Your task to perform on an android device: Search for a new lawnmower on Lowes.com Image 0: 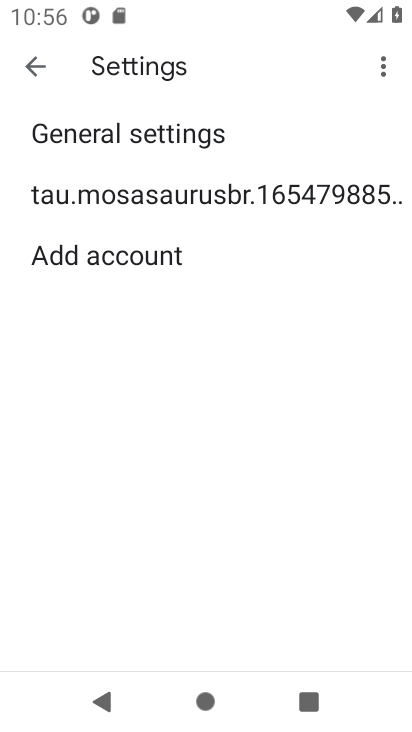
Step 0: press home button
Your task to perform on an android device: Search for a new lawnmower on Lowes.com Image 1: 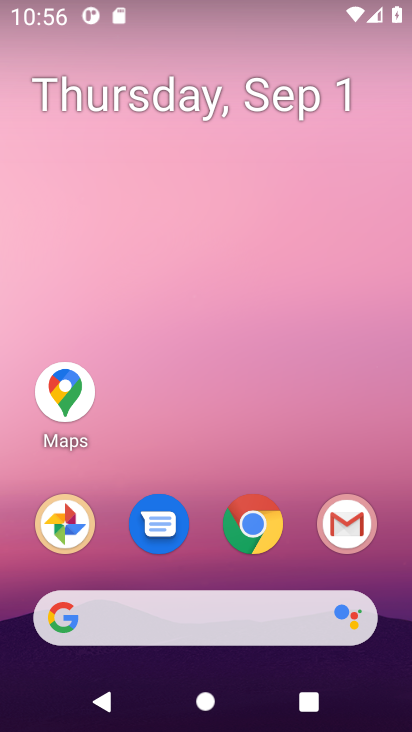
Step 1: click (256, 615)
Your task to perform on an android device: Search for a new lawnmower on Lowes.com Image 2: 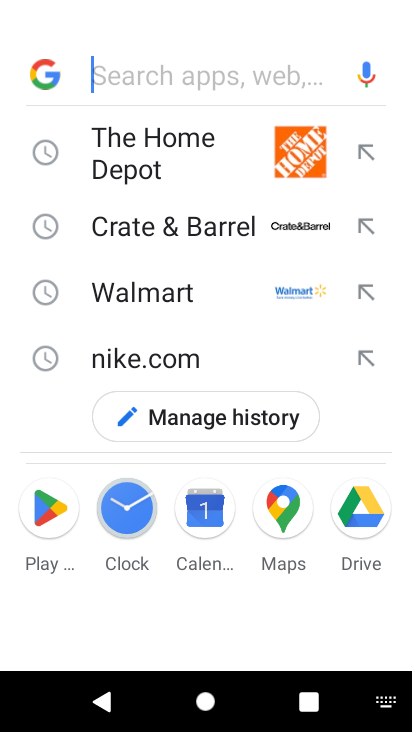
Step 2: type "lowes.com"
Your task to perform on an android device: Search for a new lawnmower on Lowes.com Image 3: 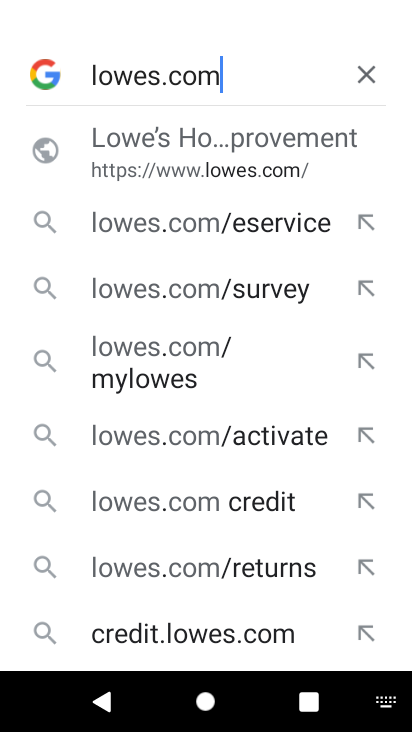
Step 3: press enter
Your task to perform on an android device: Search for a new lawnmower on Lowes.com Image 4: 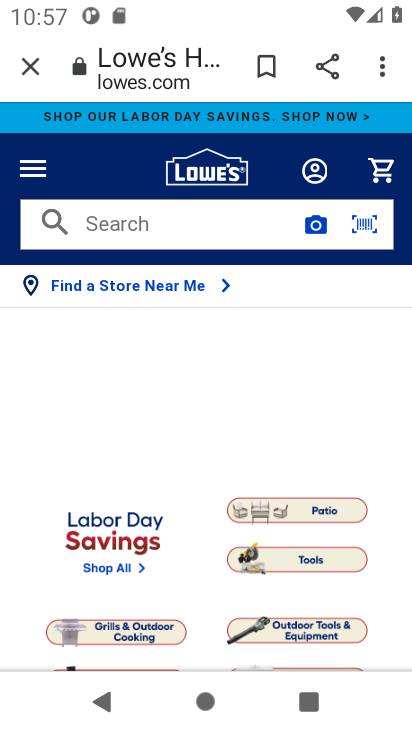
Step 4: click (161, 212)
Your task to perform on an android device: Search for a new lawnmower on Lowes.com Image 5: 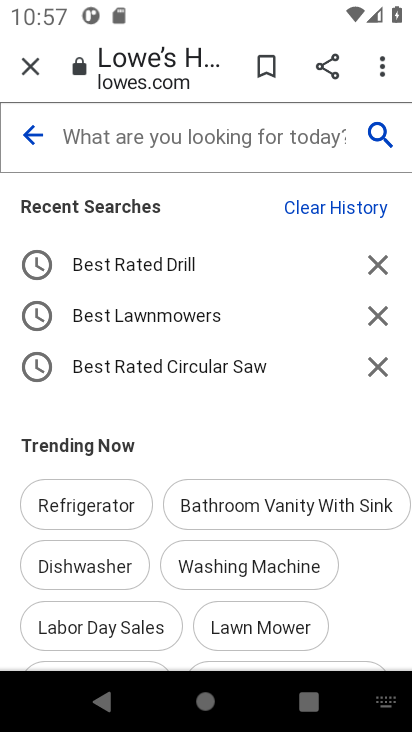
Step 5: press enter
Your task to perform on an android device: Search for a new lawnmower on Lowes.com Image 6: 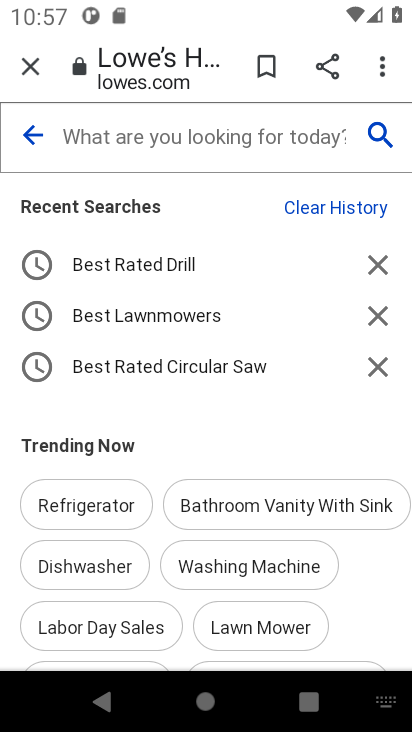
Step 6: type "lawnmower"
Your task to perform on an android device: Search for a new lawnmower on Lowes.com Image 7: 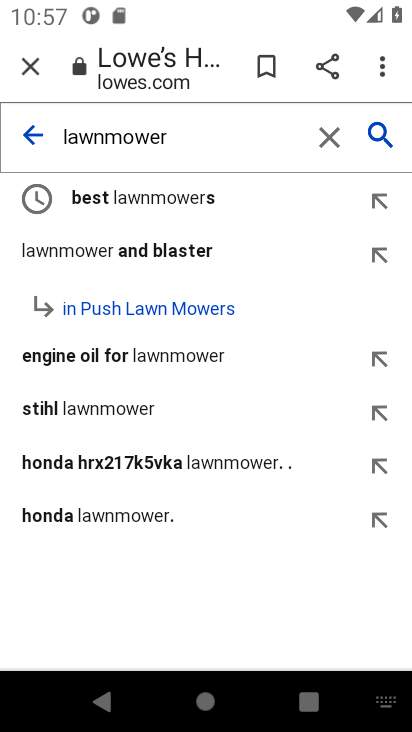
Step 7: click (377, 123)
Your task to perform on an android device: Search for a new lawnmower on Lowes.com Image 8: 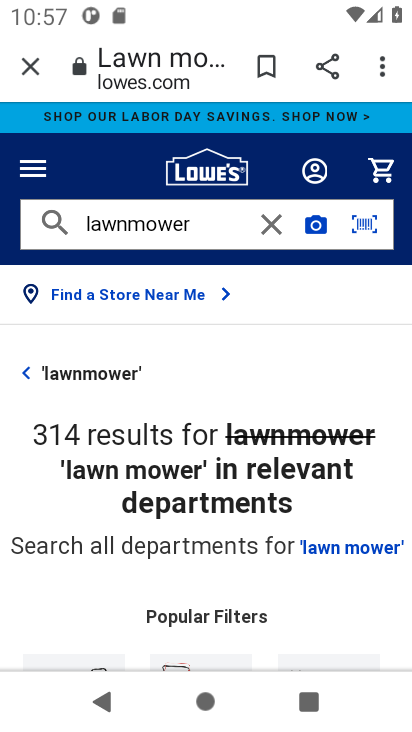
Step 8: task complete